Your task to perform on an android device: Open Youtube and go to the subscriptions tab Image 0: 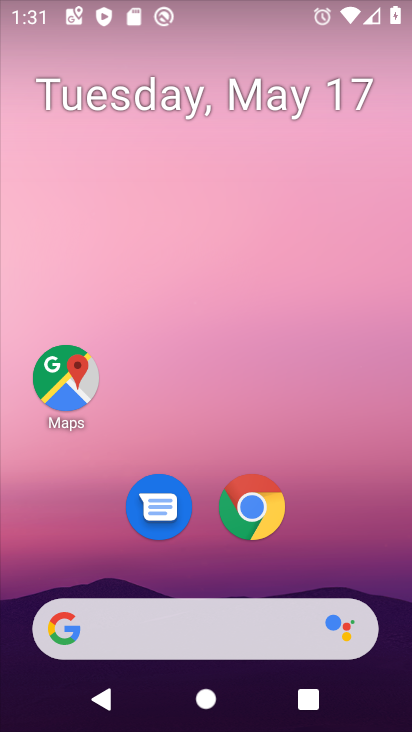
Step 0: drag from (337, 520) to (372, 231)
Your task to perform on an android device: Open Youtube and go to the subscriptions tab Image 1: 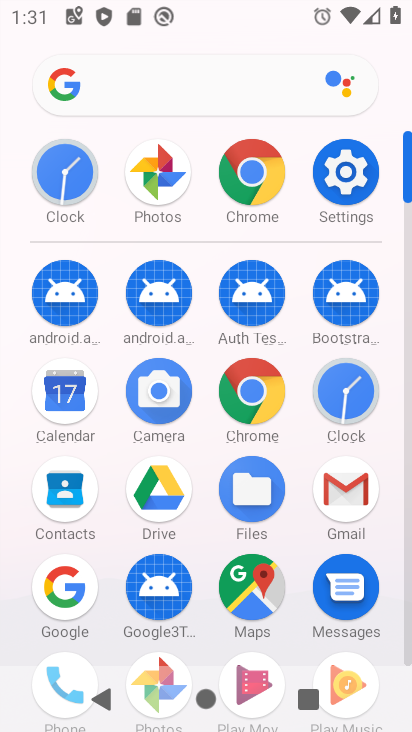
Step 1: drag from (289, 564) to (343, 115)
Your task to perform on an android device: Open Youtube and go to the subscriptions tab Image 2: 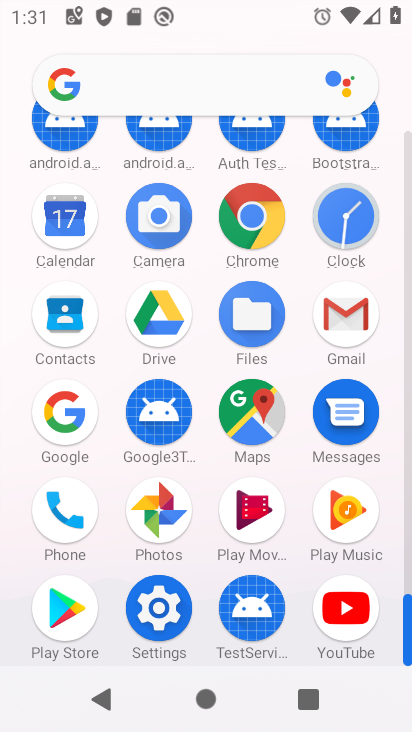
Step 2: click (344, 609)
Your task to perform on an android device: Open Youtube and go to the subscriptions tab Image 3: 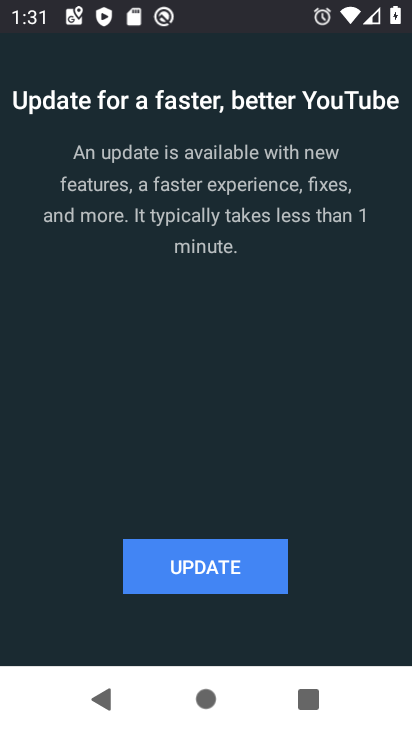
Step 3: task complete